Your task to perform on an android device: Go to ESPN.com Image 0: 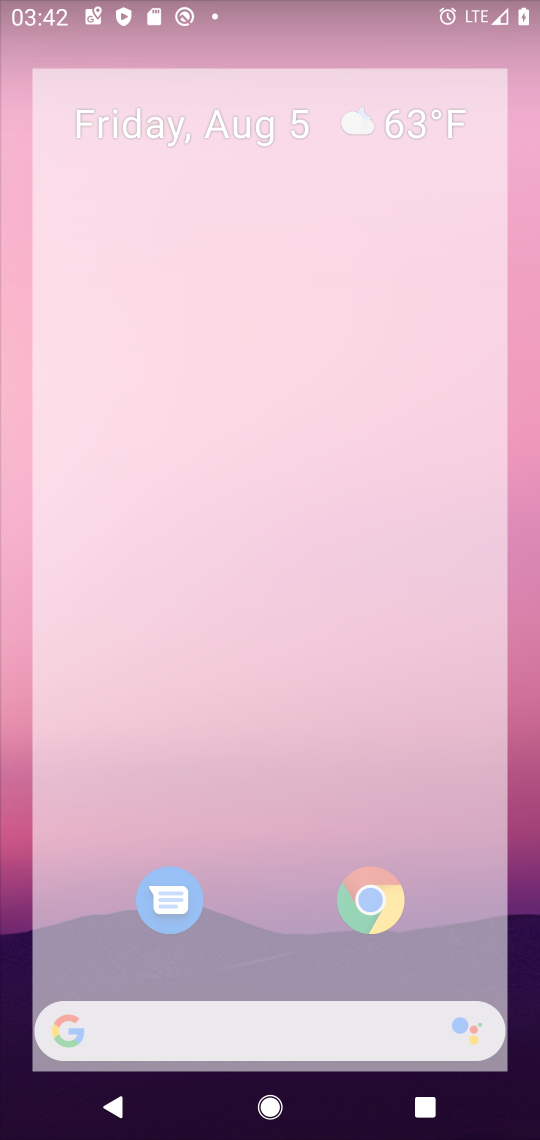
Step 0: press back button
Your task to perform on an android device: Go to ESPN.com Image 1: 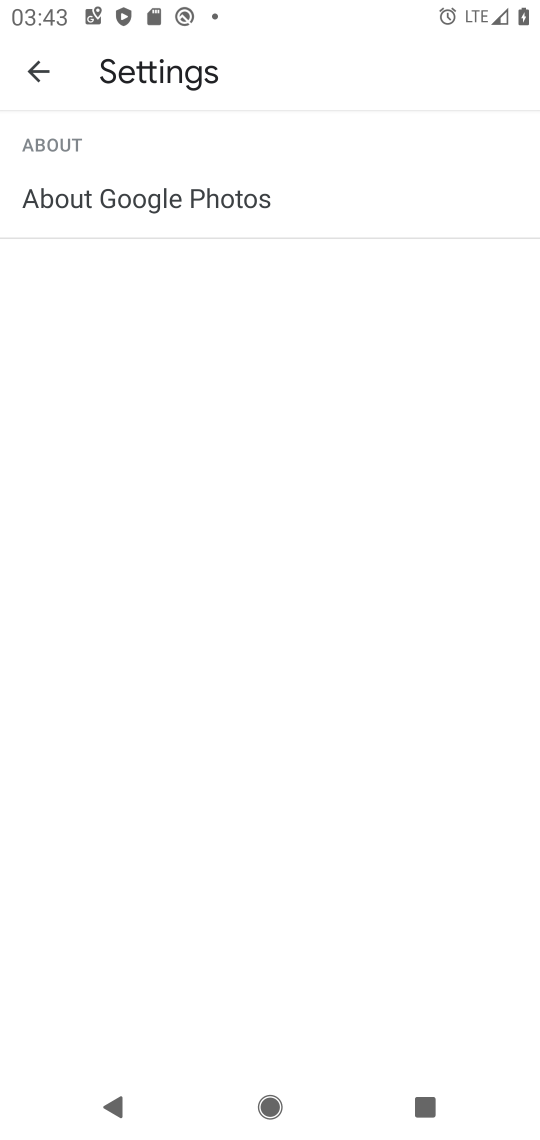
Step 1: press home button
Your task to perform on an android device: Go to ESPN.com Image 2: 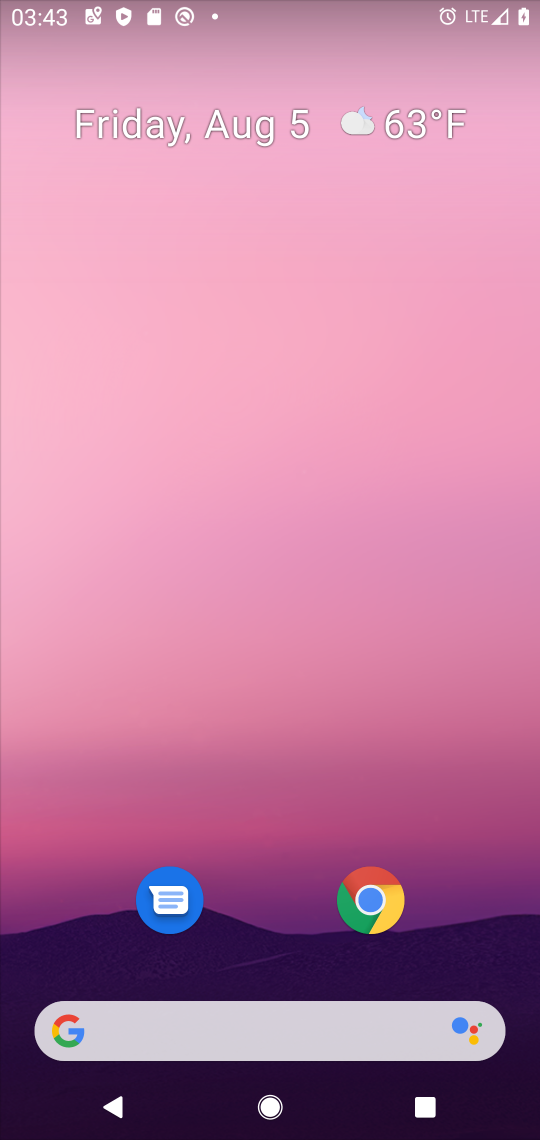
Step 2: click (369, 891)
Your task to perform on an android device: Go to ESPN.com Image 3: 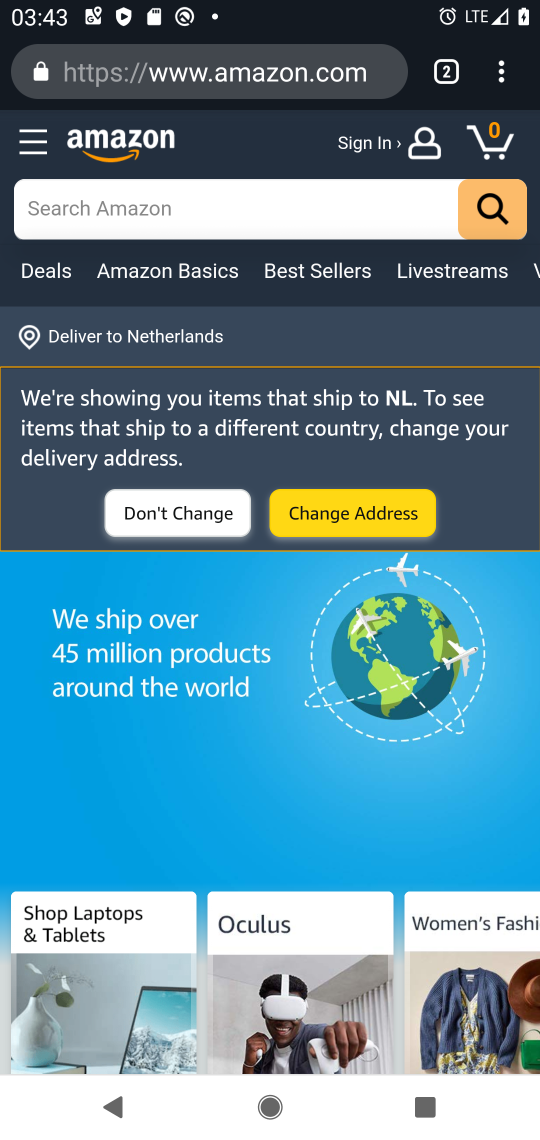
Step 3: click (449, 61)
Your task to perform on an android device: Go to ESPN.com Image 4: 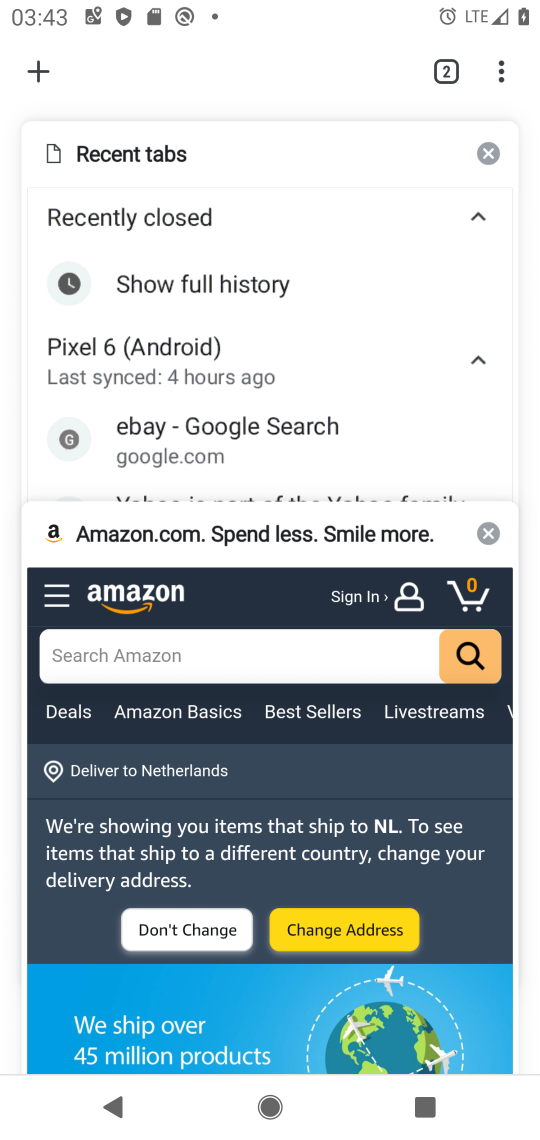
Step 4: click (48, 71)
Your task to perform on an android device: Go to ESPN.com Image 5: 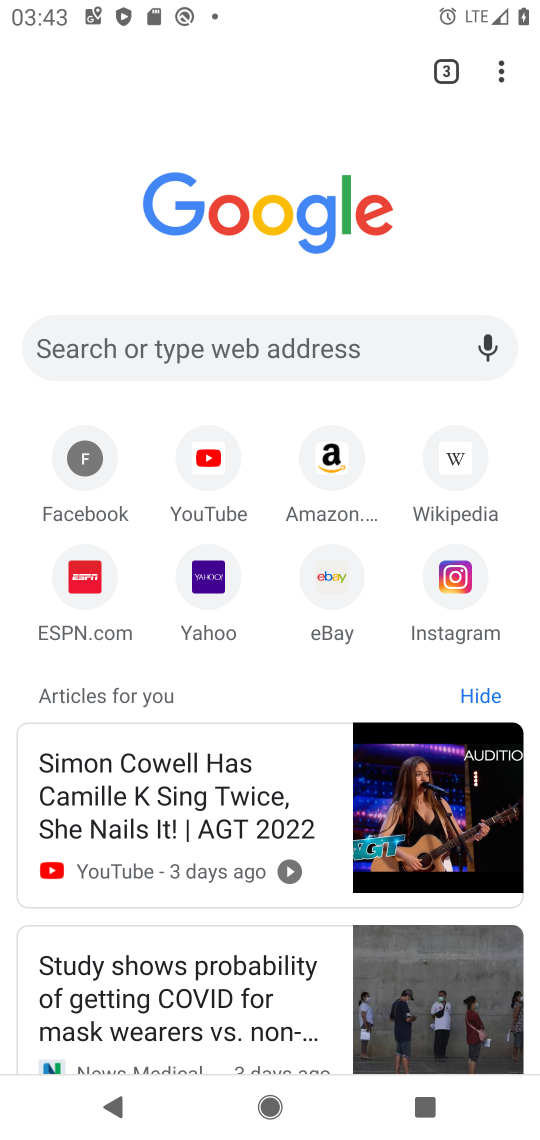
Step 5: click (81, 600)
Your task to perform on an android device: Go to ESPN.com Image 6: 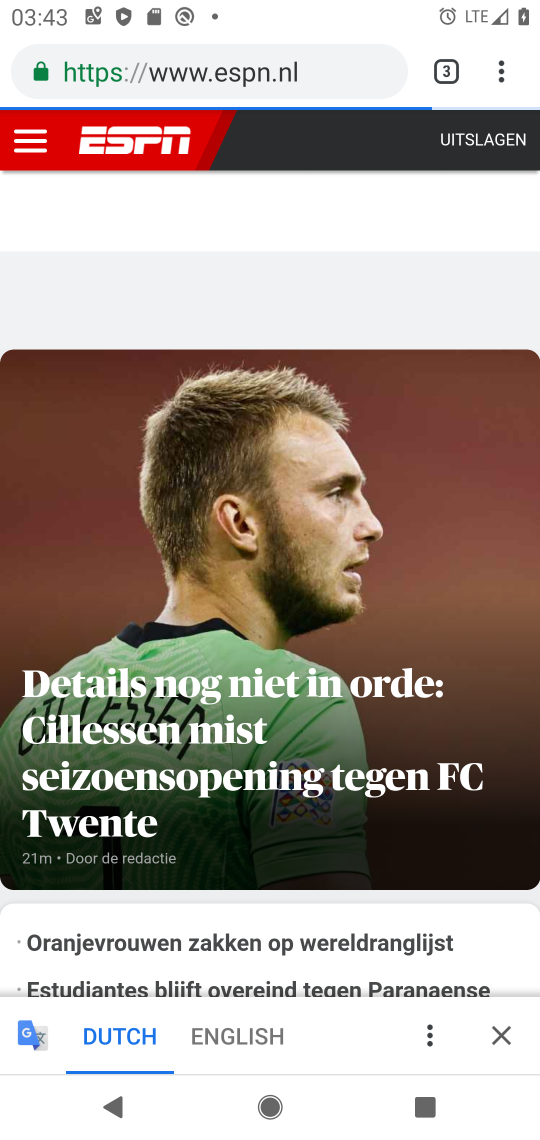
Step 6: task complete